Your task to perform on an android device: Clear the shopping cart on costco.com. Image 0: 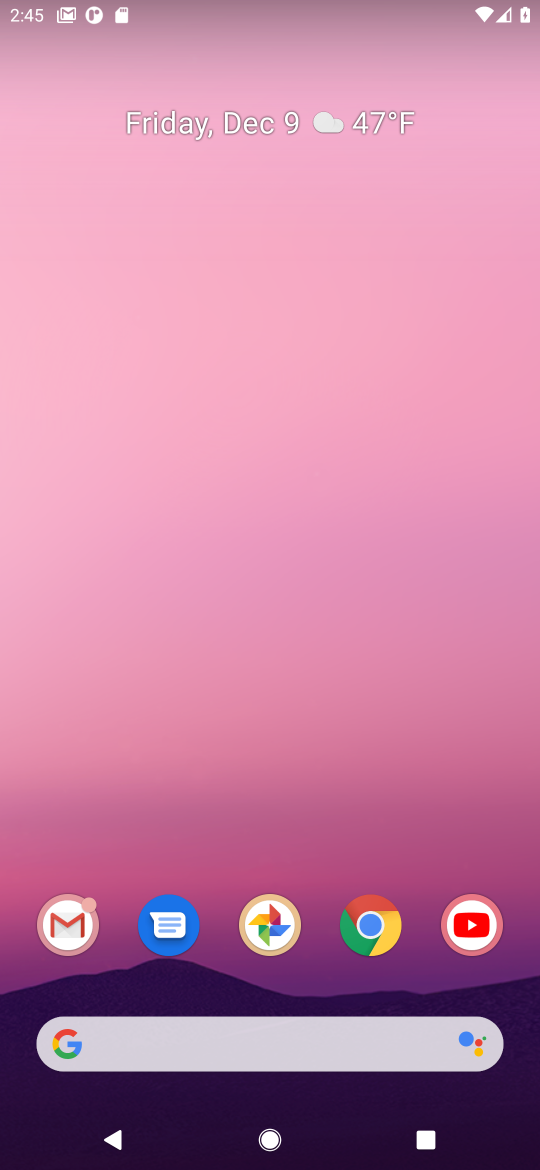
Step 0: click (375, 922)
Your task to perform on an android device: Clear the shopping cart on costco.com. Image 1: 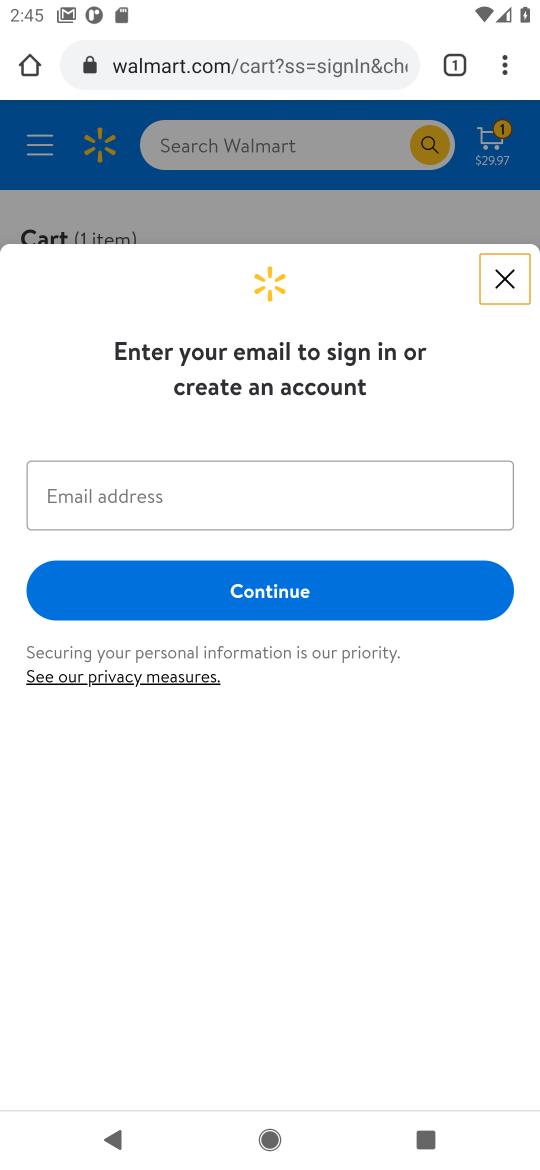
Step 1: click (261, 62)
Your task to perform on an android device: Clear the shopping cart on costco.com. Image 2: 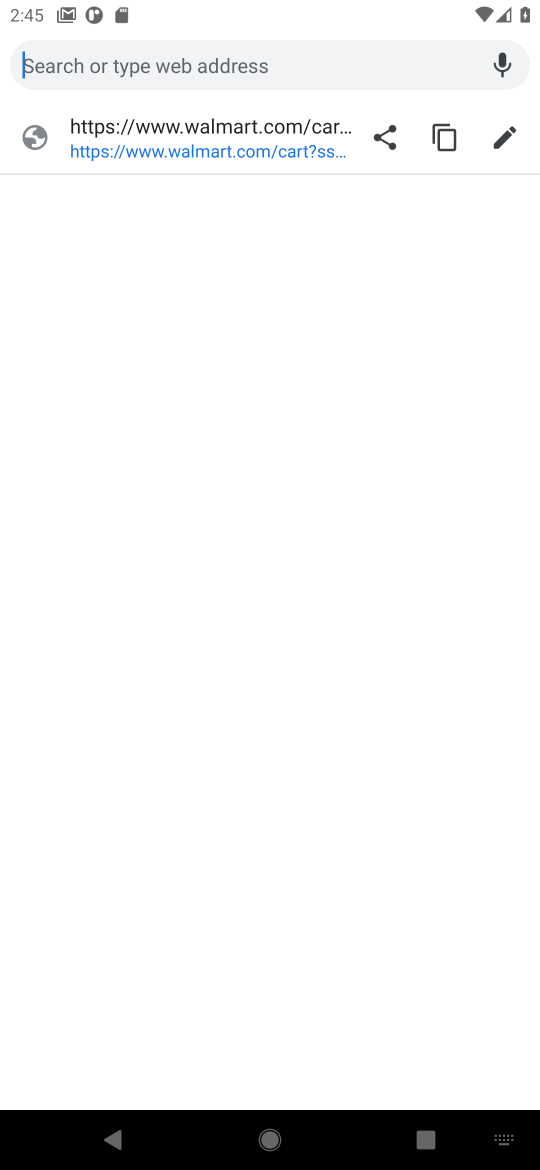
Step 2: type "COSTCO"
Your task to perform on an android device: Clear the shopping cart on costco.com. Image 3: 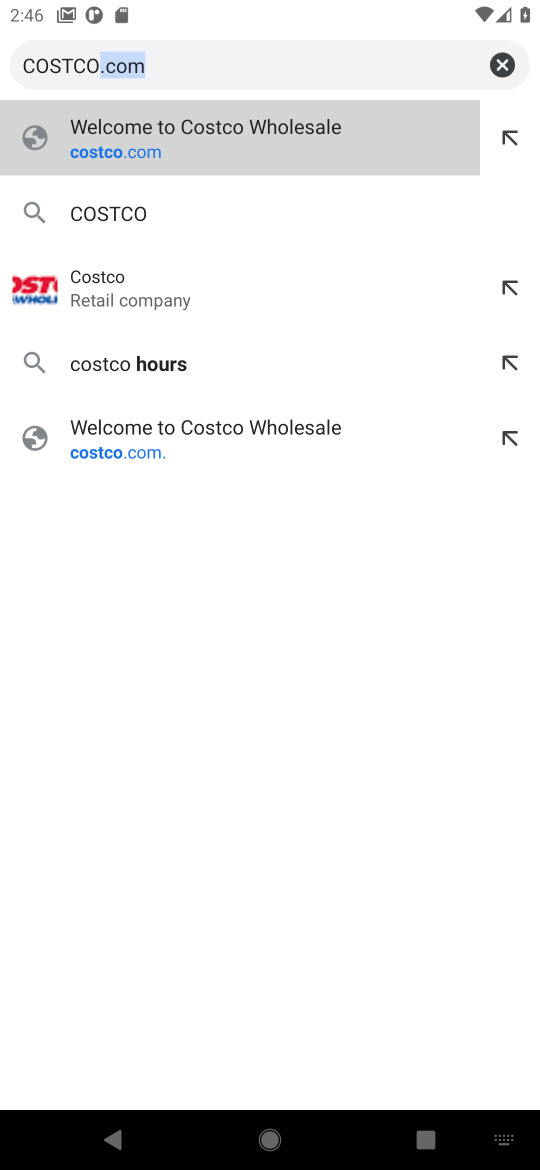
Step 3: click (289, 135)
Your task to perform on an android device: Clear the shopping cart on costco.com. Image 4: 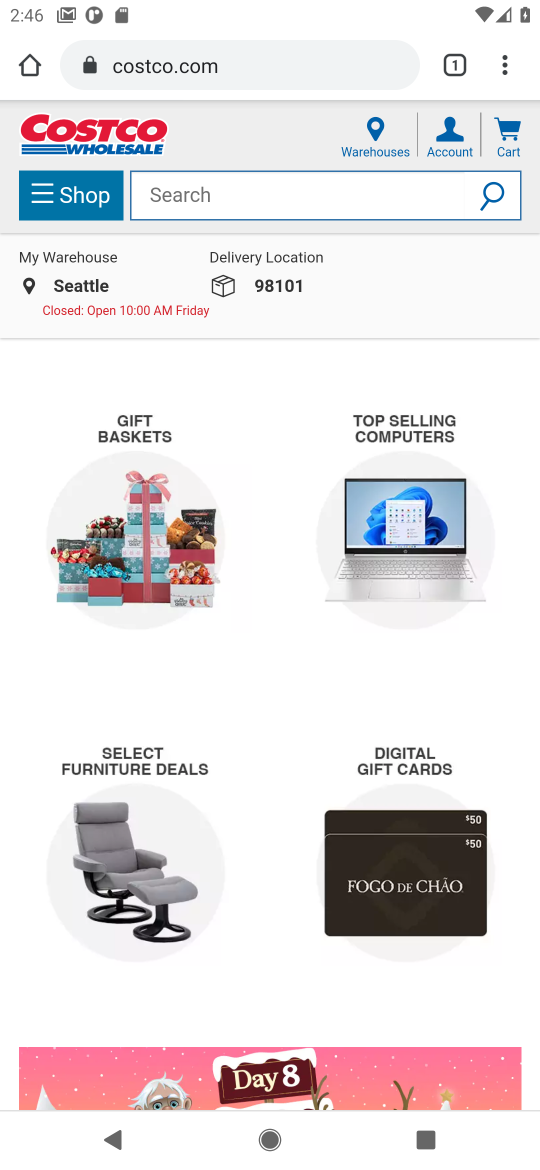
Step 4: click (502, 139)
Your task to perform on an android device: Clear the shopping cart on costco.com. Image 5: 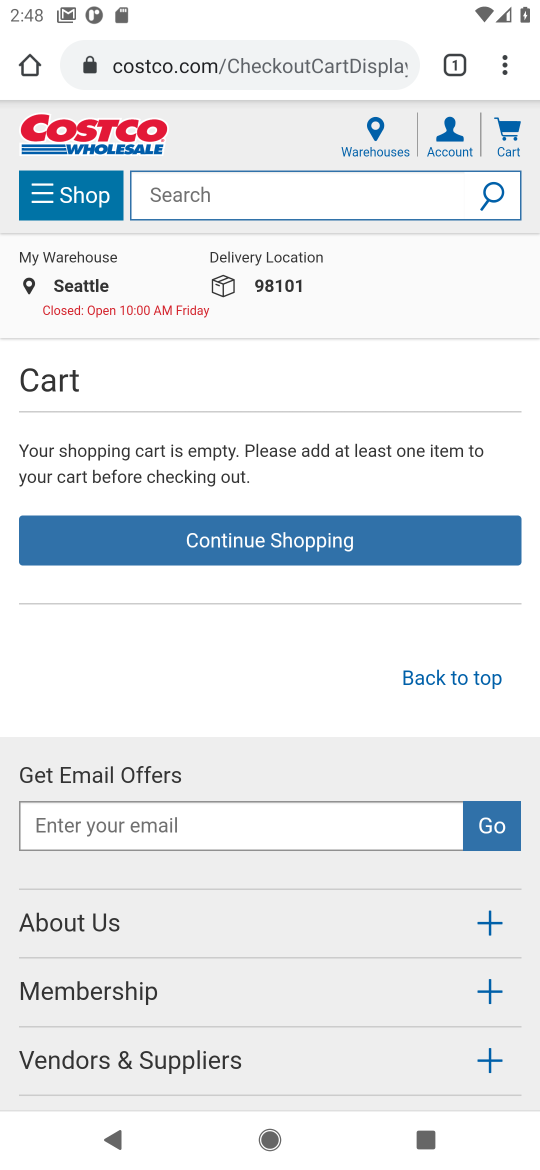
Step 5: task complete